Your task to perform on an android device: Open privacy settings Image 0: 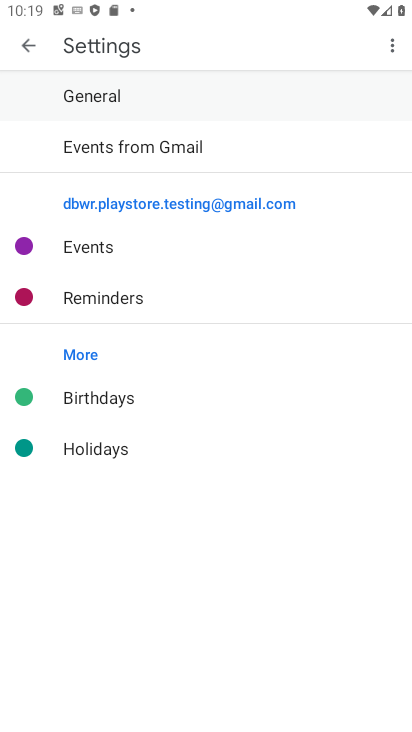
Step 0: press home button
Your task to perform on an android device: Open privacy settings Image 1: 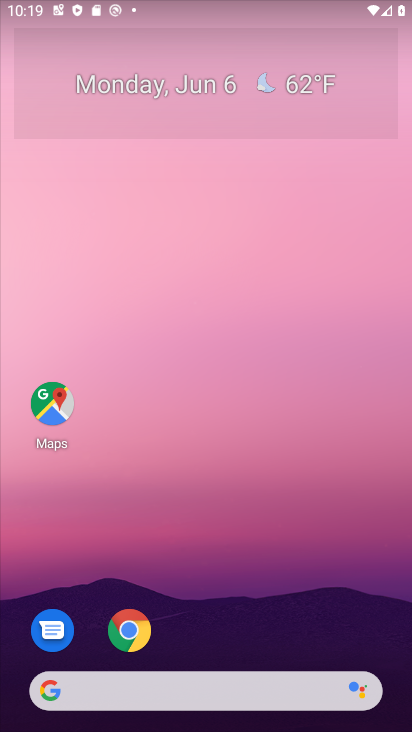
Step 1: drag from (376, 619) to (352, 189)
Your task to perform on an android device: Open privacy settings Image 2: 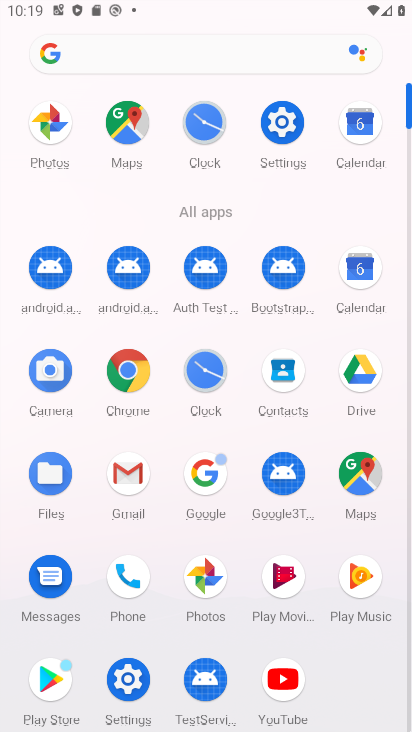
Step 2: click (290, 115)
Your task to perform on an android device: Open privacy settings Image 3: 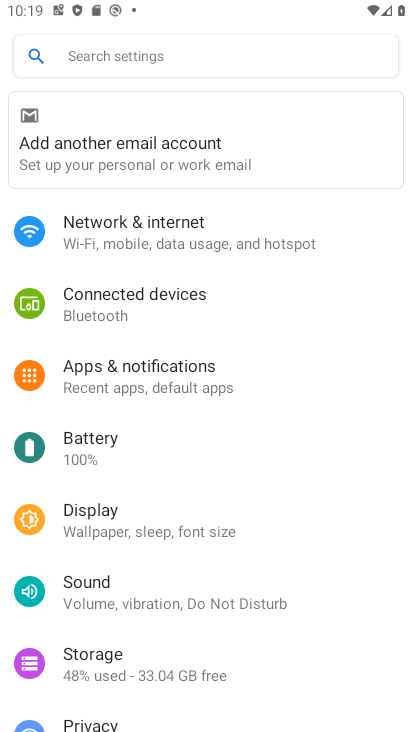
Step 3: drag from (168, 638) to (193, 425)
Your task to perform on an android device: Open privacy settings Image 4: 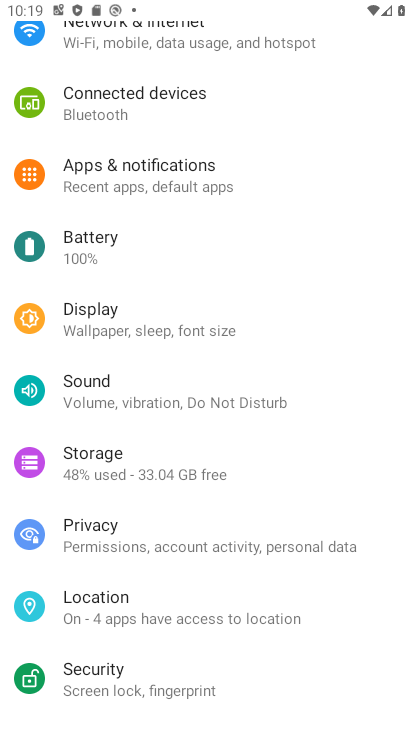
Step 4: click (145, 540)
Your task to perform on an android device: Open privacy settings Image 5: 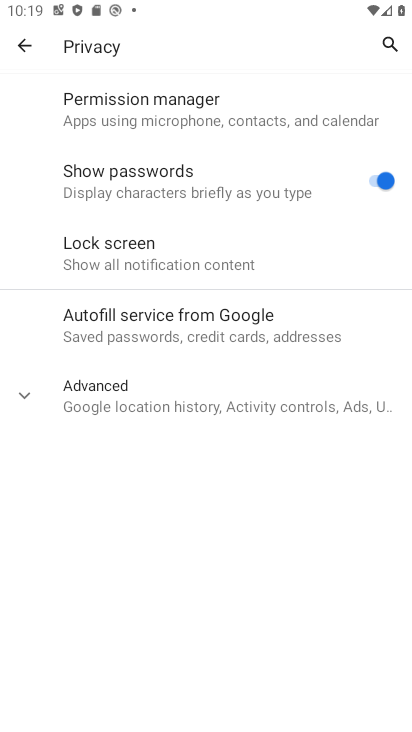
Step 5: task complete